Your task to perform on an android device: find photos in the google photos app Image 0: 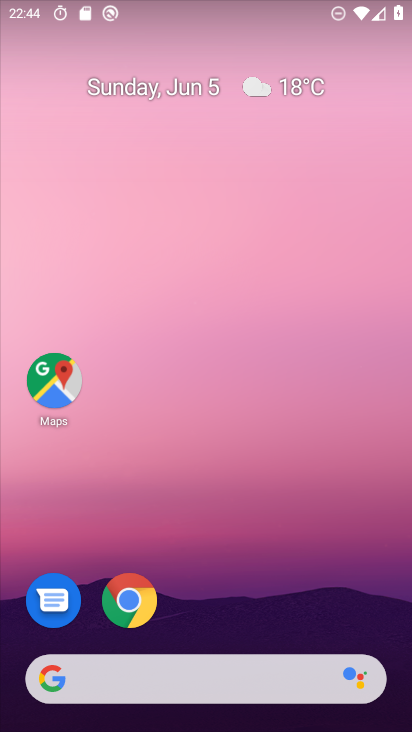
Step 0: drag from (255, 519) to (204, 8)
Your task to perform on an android device: find photos in the google photos app Image 1: 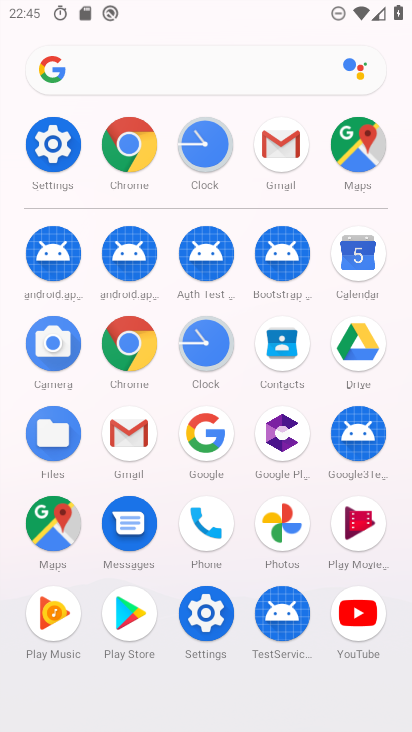
Step 1: click (282, 521)
Your task to perform on an android device: find photos in the google photos app Image 2: 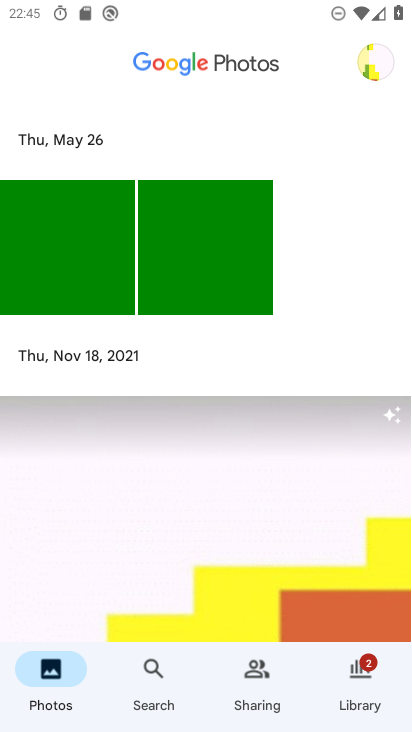
Step 2: task complete